Your task to perform on an android device: Open CNN.com Image 0: 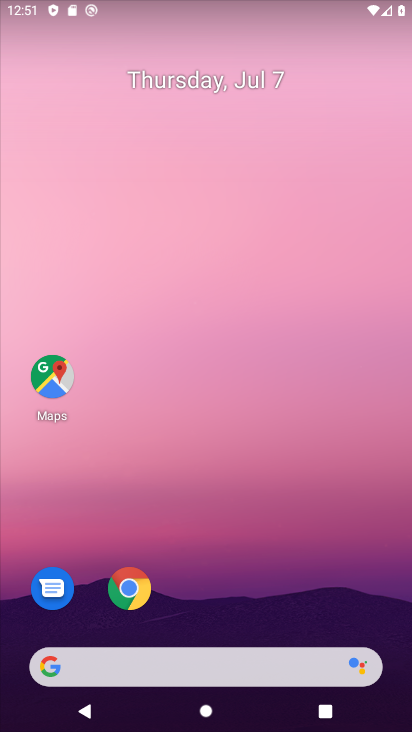
Step 0: drag from (282, 601) to (289, 330)
Your task to perform on an android device: Open CNN.com Image 1: 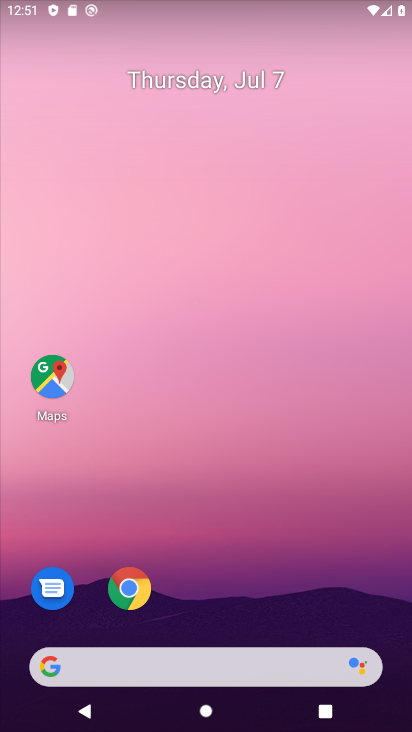
Step 1: drag from (222, 616) to (242, 351)
Your task to perform on an android device: Open CNN.com Image 2: 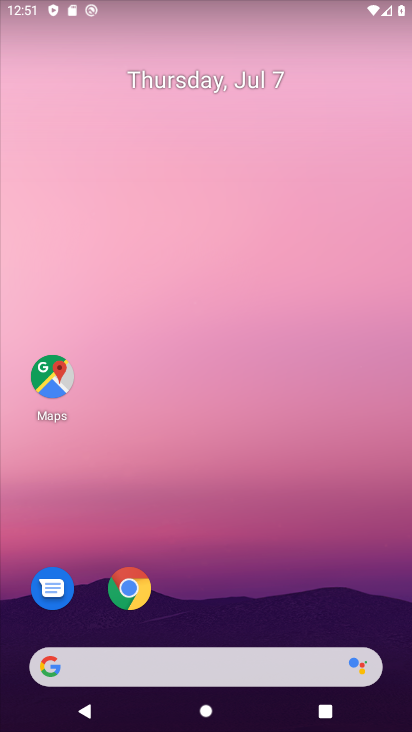
Step 2: drag from (225, 646) to (265, 344)
Your task to perform on an android device: Open CNN.com Image 3: 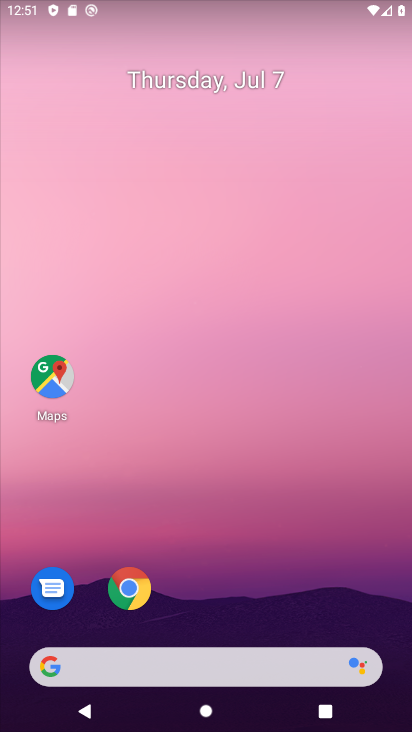
Step 3: drag from (200, 655) to (213, 314)
Your task to perform on an android device: Open CNN.com Image 4: 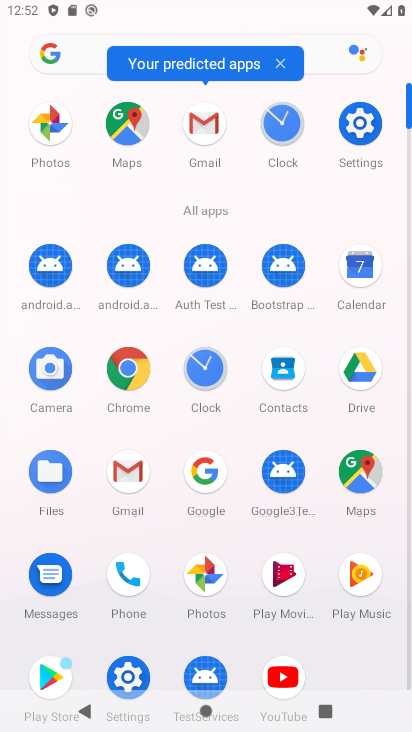
Step 4: click (137, 350)
Your task to perform on an android device: Open CNN.com Image 5: 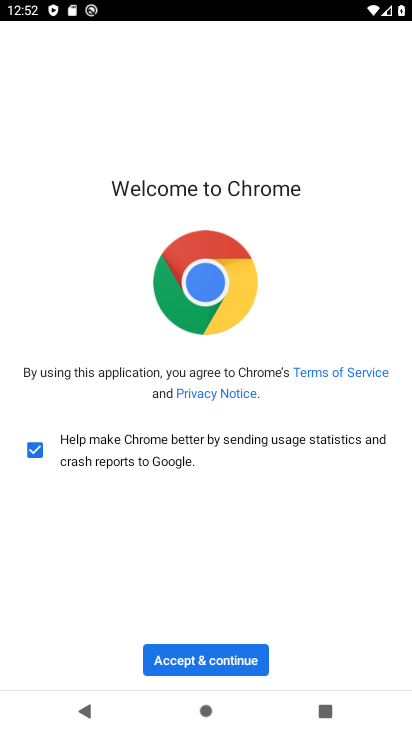
Step 5: click (175, 664)
Your task to perform on an android device: Open CNN.com Image 6: 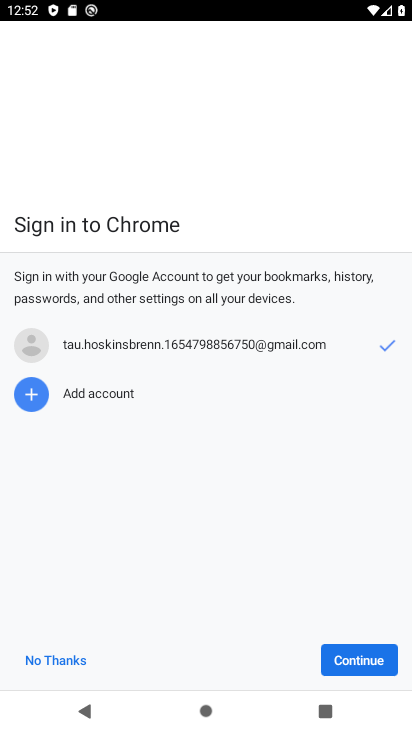
Step 6: click (359, 646)
Your task to perform on an android device: Open CNN.com Image 7: 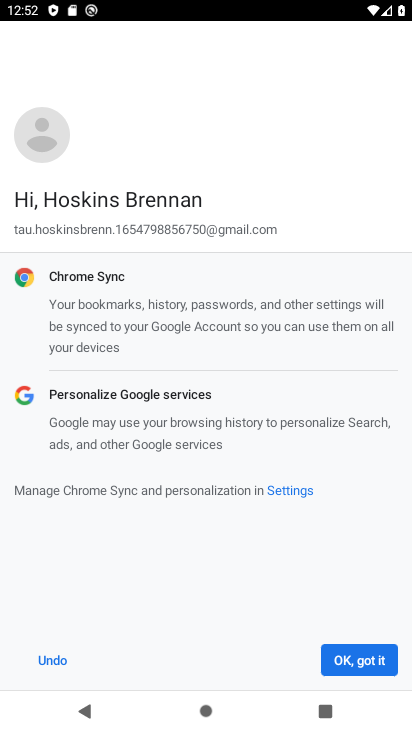
Step 7: click (335, 649)
Your task to perform on an android device: Open CNN.com Image 8: 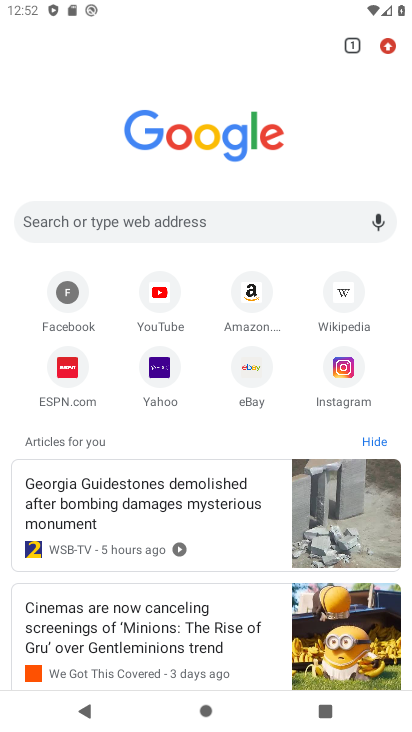
Step 8: click (179, 214)
Your task to perform on an android device: Open CNN.com Image 9: 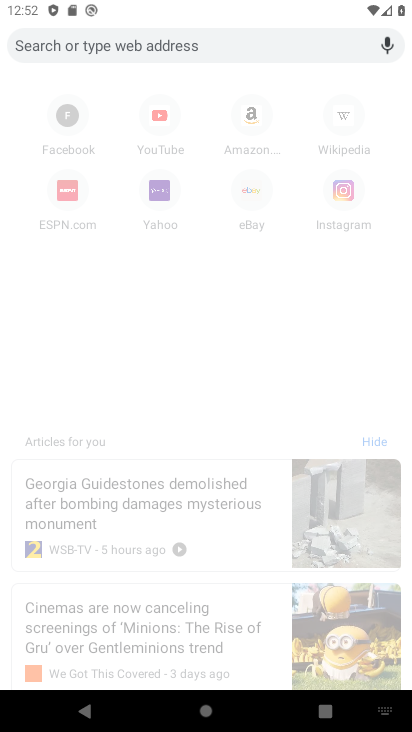
Step 9: type " CNN.com "
Your task to perform on an android device: Open CNN.com Image 10: 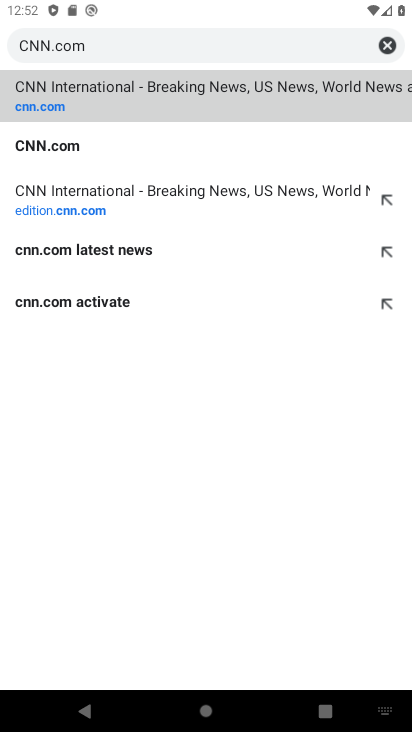
Step 10: click (268, 100)
Your task to perform on an android device: Open CNN.com Image 11: 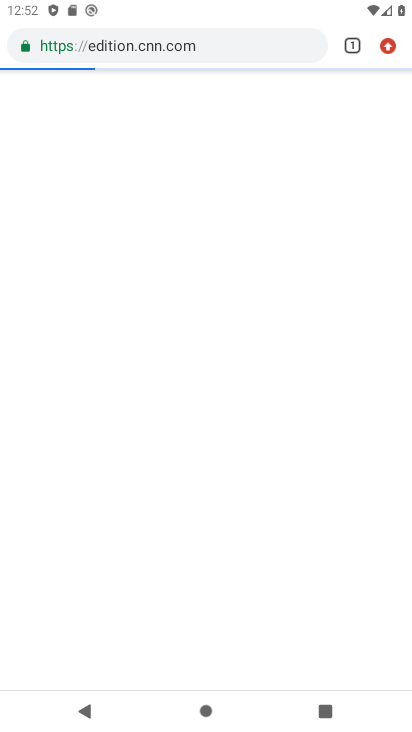
Step 11: task complete